Your task to perform on an android device: stop showing notifications on the lock screen Image 0: 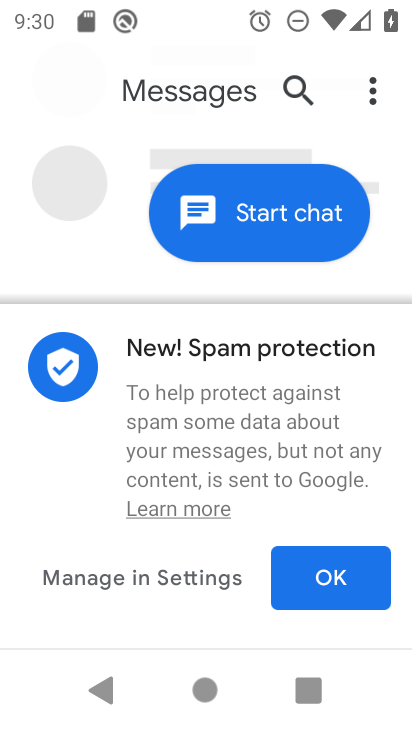
Step 0: press home button
Your task to perform on an android device: stop showing notifications on the lock screen Image 1: 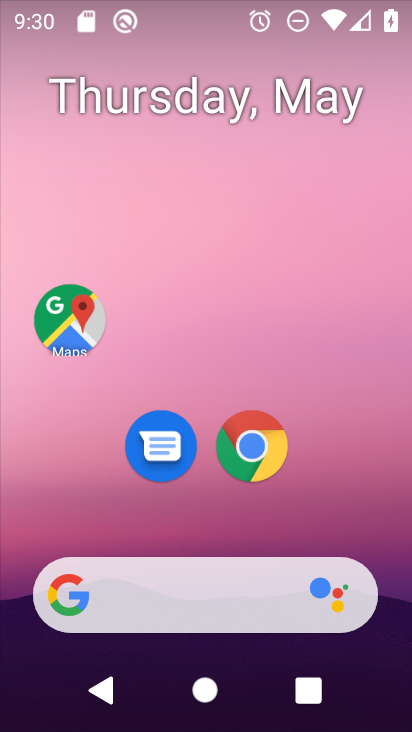
Step 1: drag from (386, 557) to (394, 140)
Your task to perform on an android device: stop showing notifications on the lock screen Image 2: 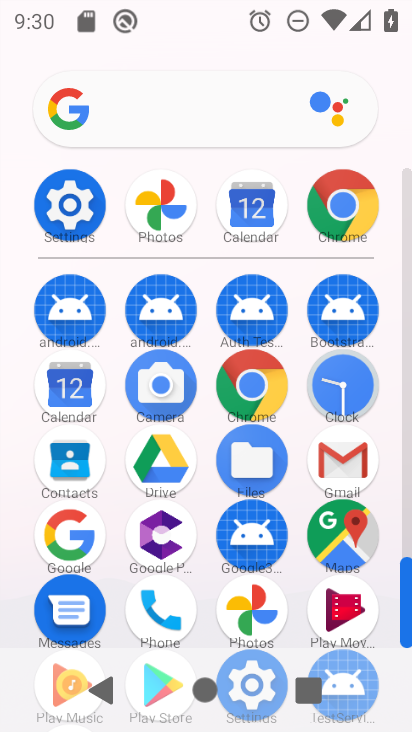
Step 2: drag from (289, 570) to (302, 255)
Your task to perform on an android device: stop showing notifications on the lock screen Image 3: 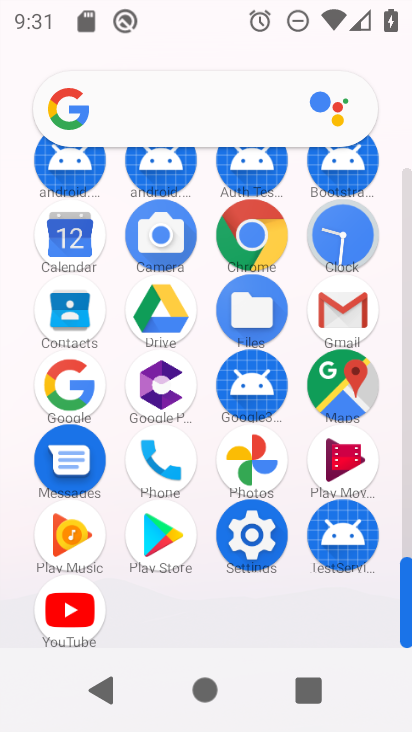
Step 3: click (247, 538)
Your task to perform on an android device: stop showing notifications on the lock screen Image 4: 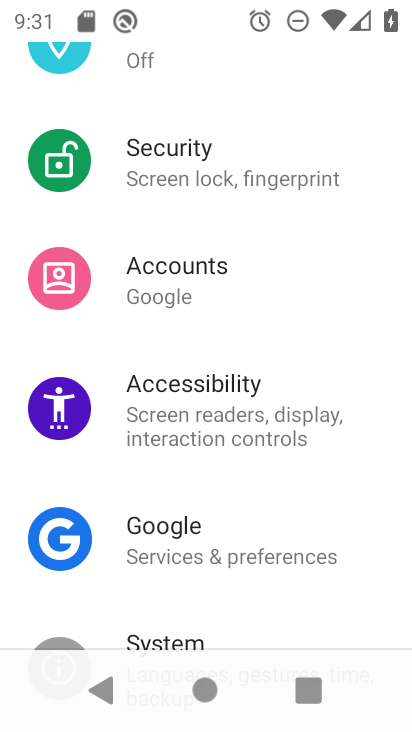
Step 4: drag from (315, 347) to (299, 522)
Your task to perform on an android device: stop showing notifications on the lock screen Image 5: 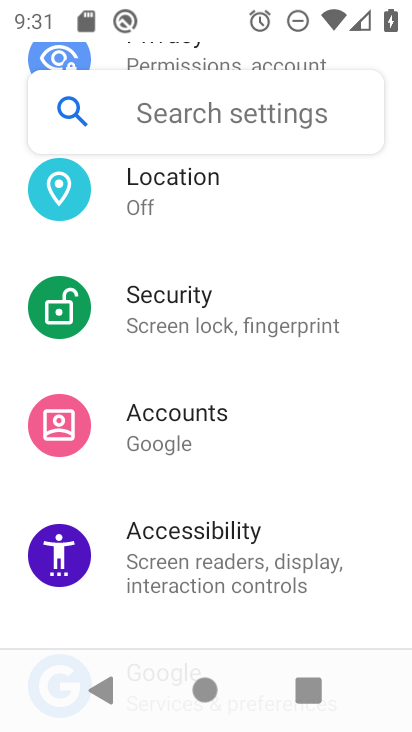
Step 5: drag from (333, 588) to (338, 255)
Your task to perform on an android device: stop showing notifications on the lock screen Image 6: 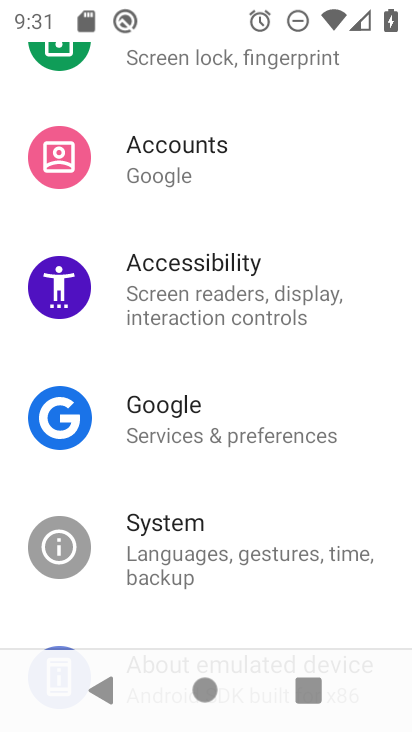
Step 6: drag from (327, 607) to (343, 291)
Your task to perform on an android device: stop showing notifications on the lock screen Image 7: 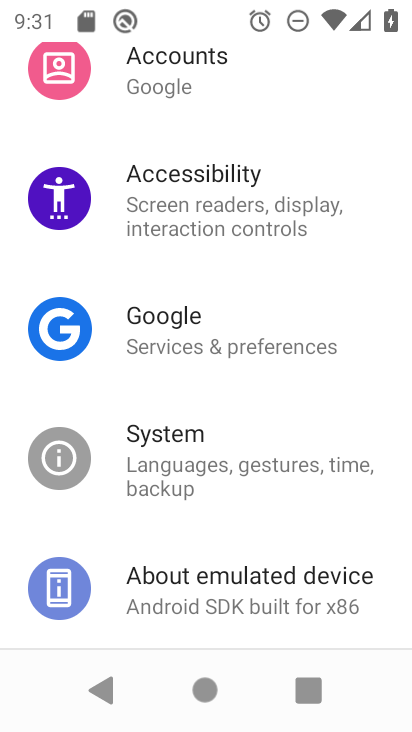
Step 7: drag from (290, 179) to (248, 561)
Your task to perform on an android device: stop showing notifications on the lock screen Image 8: 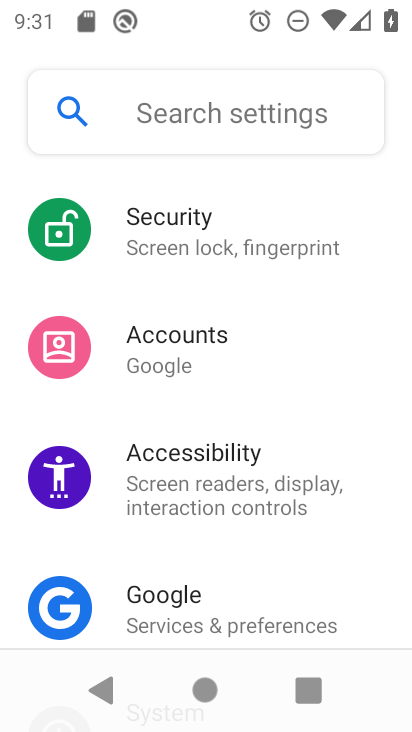
Step 8: drag from (263, 239) to (245, 528)
Your task to perform on an android device: stop showing notifications on the lock screen Image 9: 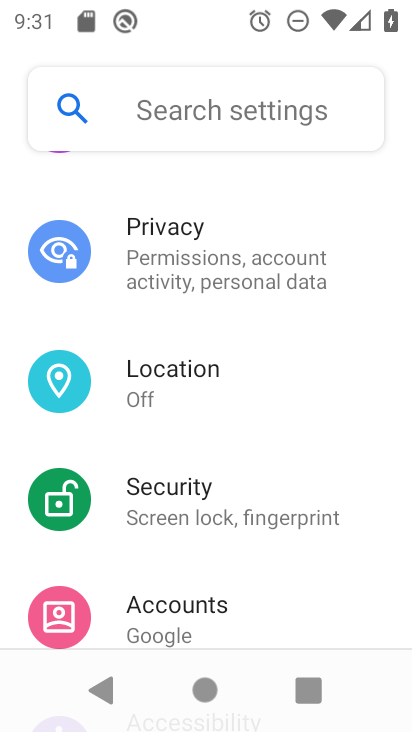
Step 9: drag from (265, 221) to (270, 588)
Your task to perform on an android device: stop showing notifications on the lock screen Image 10: 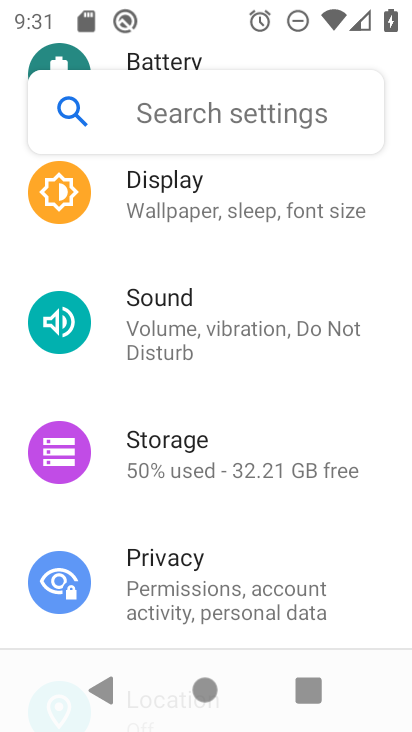
Step 10: drag from (269, 281) to (229, 631)
Your task to perform on an android device: stop showing notifications on the lock screen Image 11: 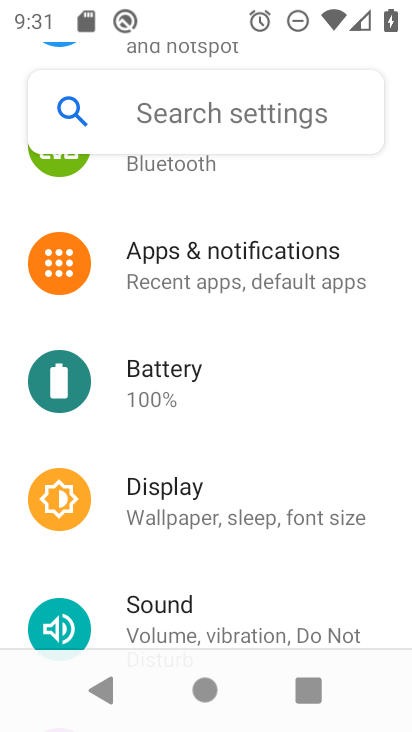
Step 11: click (220, 274)
Your task to perform on an android device: stop showing notifications on the lock screen Image 12: 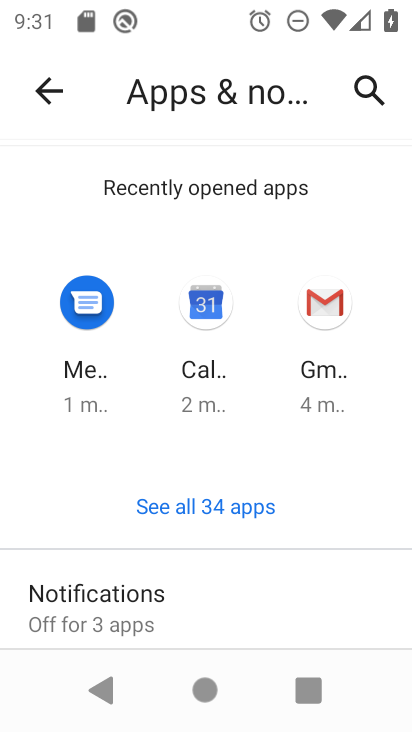
Step 12: click (119, 602)
Your task to perform on an android device: stop showing notifications on the lock screen Image 13: 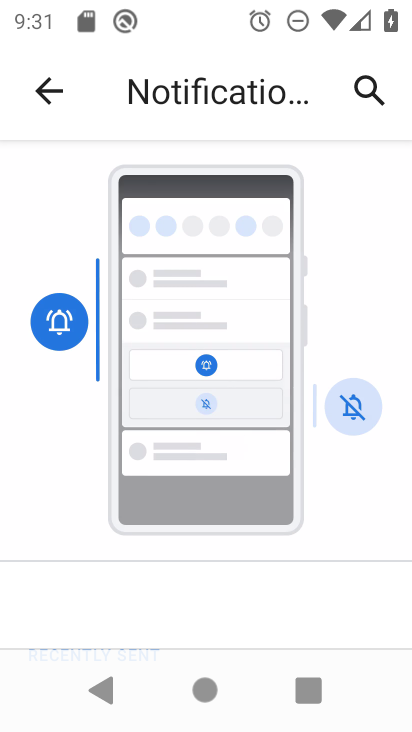
Step 13: drag from (280, 589) to (338, 232)
Your task to perform on an android device: stop showing notifications on the lock screen Image 14: 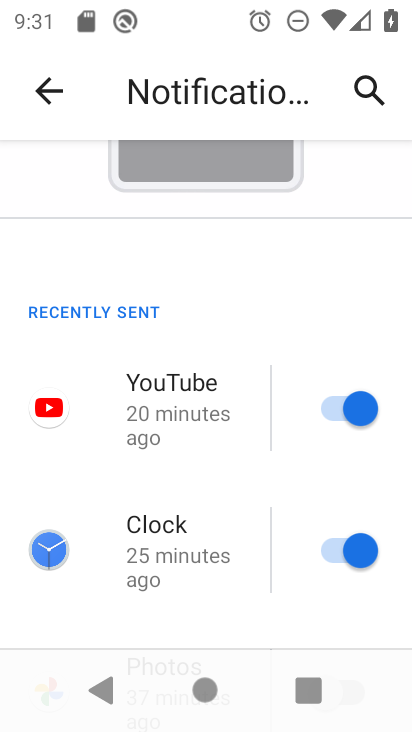
Step 14: drag from (239, 591) to (287, 234)
Your task to perform on an android device: stop showing notifications on the lock screen Image 15: 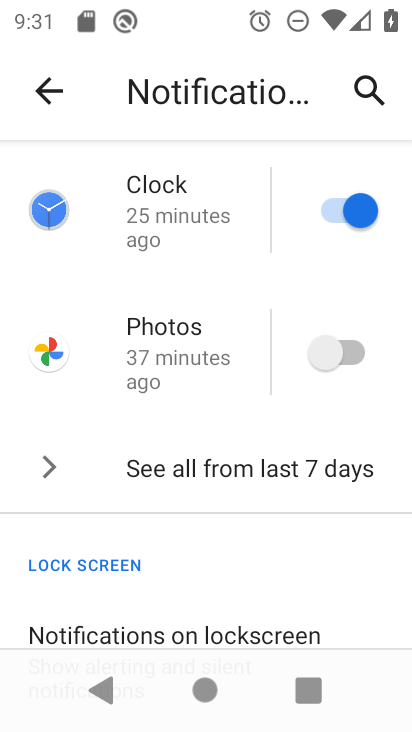
Step 15: drag from (188, 583) to (245, 268)
Your task to perform on an android device: stop showing notifications on the lock screen Image 16: 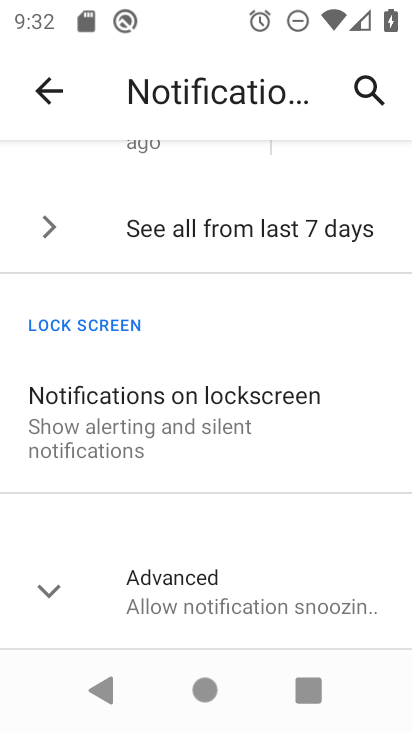
Step 16: click (211, 403)
Your task to perform on an android device: stop showing notifications on the lock screen Image 17: 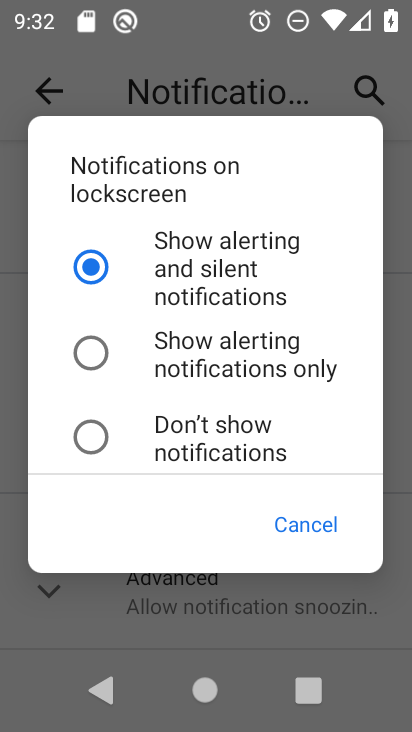
Step 17: click (89, 441)
Your task to perform on an android device: stop showing notifications on the lock screen Image 18: 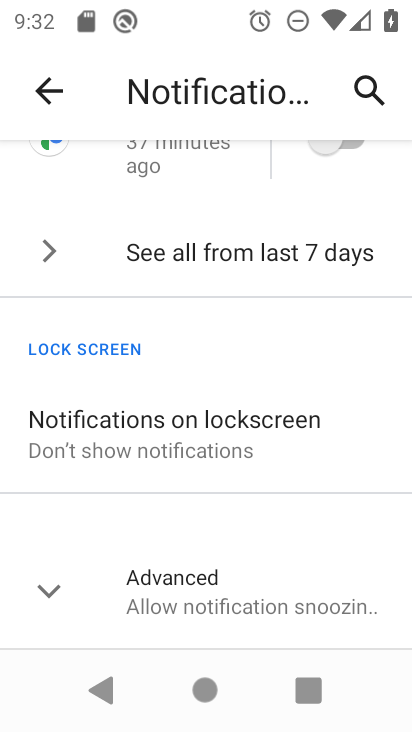
Step 18: task complete